Your task to perform on an android device: Open calendar and show me the fourth week of next month Image 0: 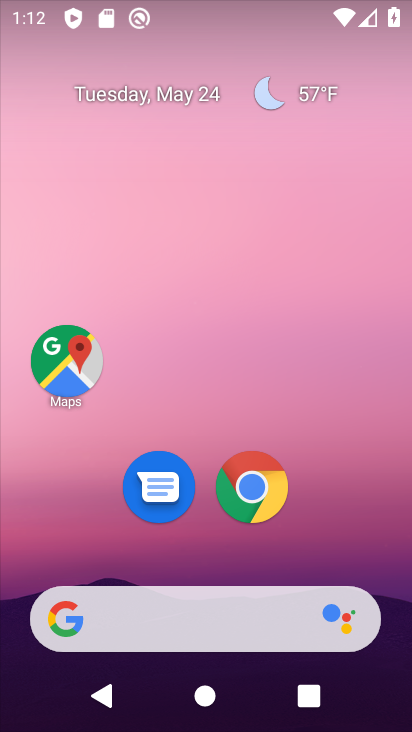
Step 0: drag from (250, 728) to (238, 68)
Your task to perform on an android device: Open calendar and show me the fourth week of next month Image 1: 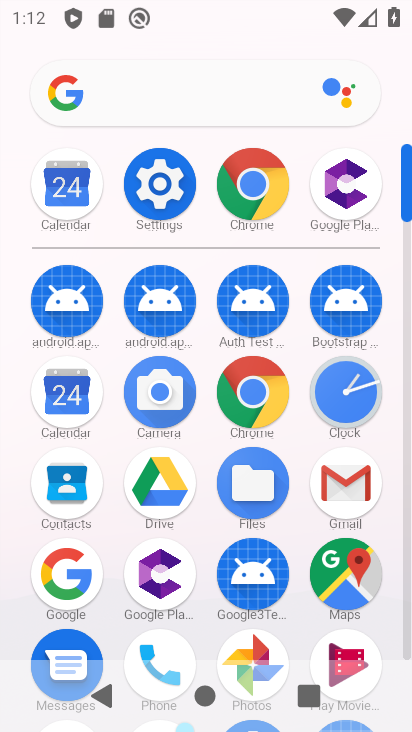
Step 1: click (72, 395)
Your task to perform on an android device: Open calendar and show me the fourth week of next month Image 2: 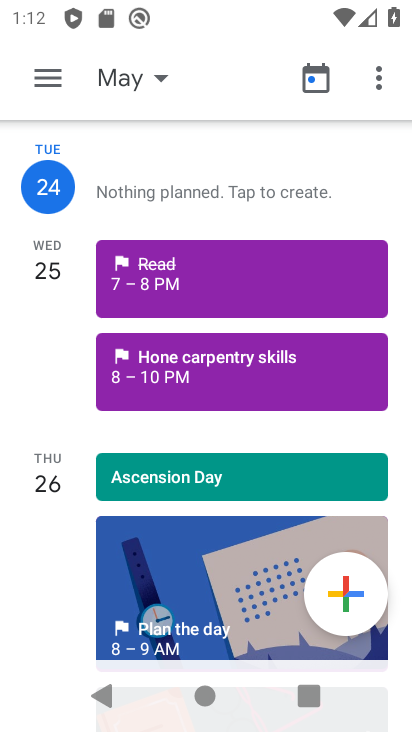
Step 2: click (162, 78)
Your task to perform on an android device: Open calendar and show me the fourth week of next month Image 3: 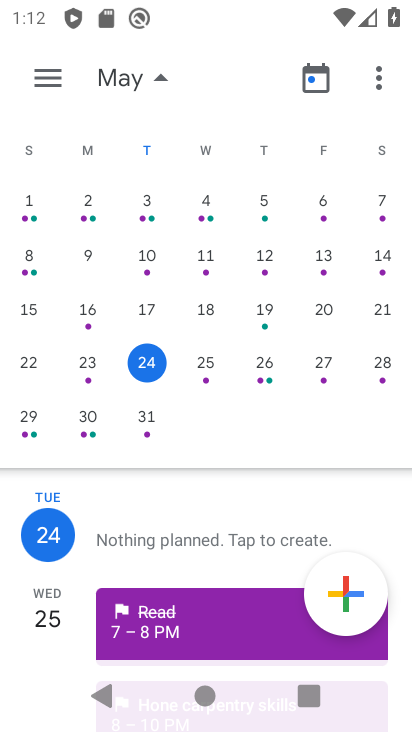
Step 3: drag from (345, 323) to (0, 349)
Your task to perform on an android device: Open calendar and show me the fourth week of next month Image 4: 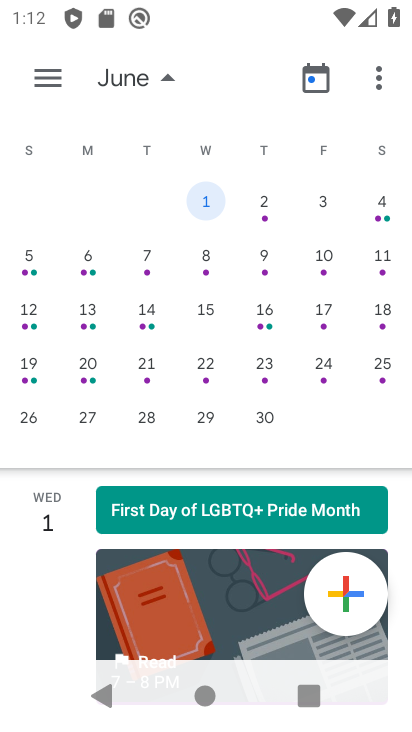
Step 4: click (86, 413)
Your task to perform on an android device: Open calendar and show me the fourth week of next month Image 5: 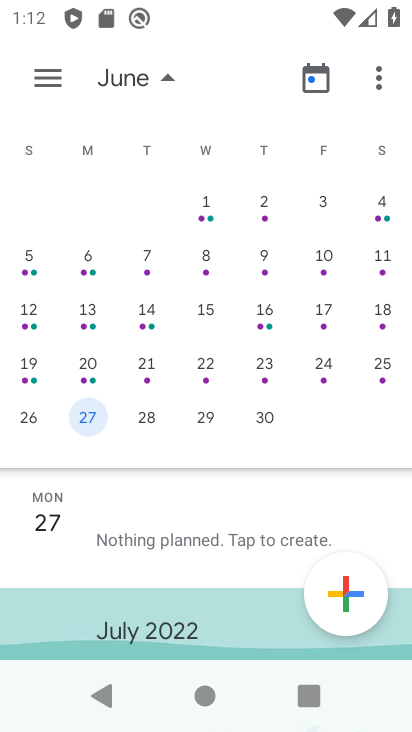
Step 5: click (43, 78)
Your task to perform on an android device: Open calendar and show me the fourth week of next month Image 6: 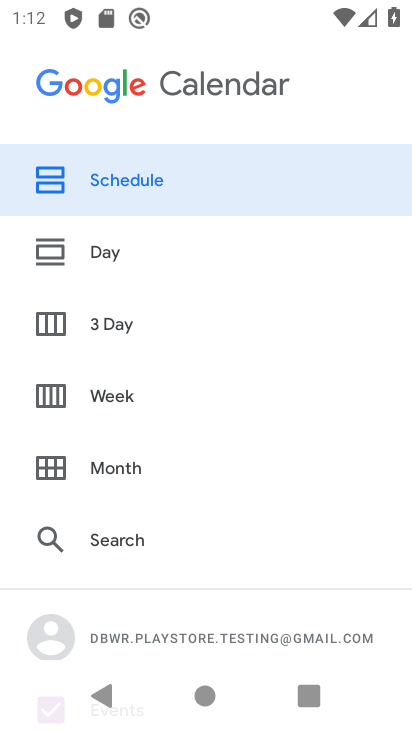
Step 6: click (109, 396)
Your task to perform on an android device: Open calendar and show me the fourth week of next month Image 7: 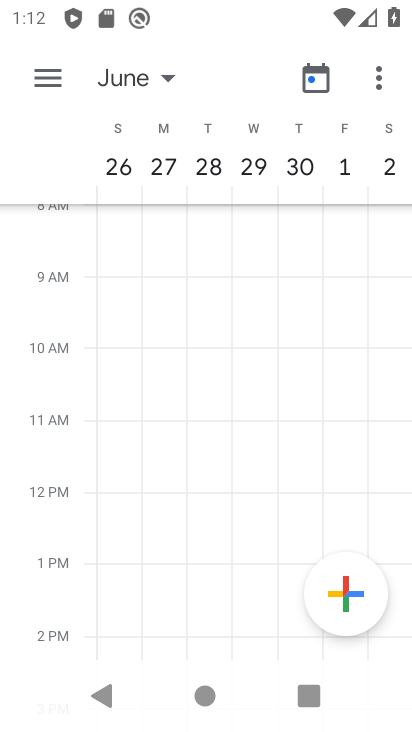
Step 7: task complete